Your task to perform on an android device: Open Google Chrome Image 0: 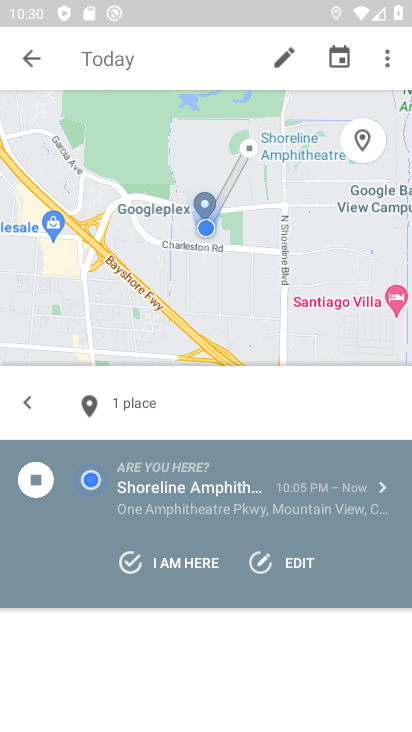
Step 0: press home button
Your task to perform on an android device: Open Google Chrome Image 1: 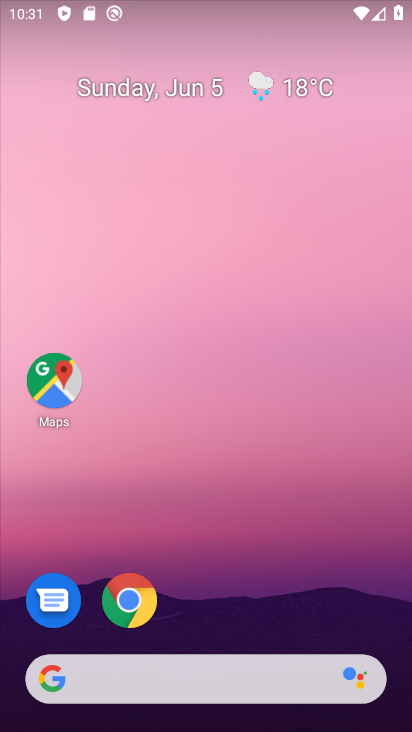
Step 1: click (129, 613)
Your task to perform on an android device: Open Google Chrome Image 2: 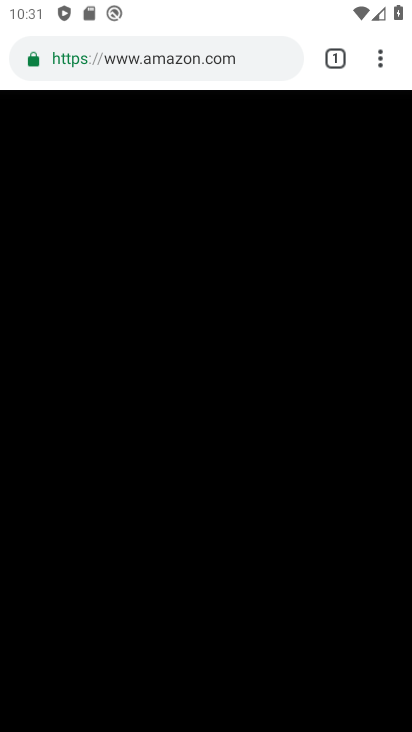
Step 2: task complete